Your task to perform on an android device: turn on showing notifications on the lock screen Image 0: 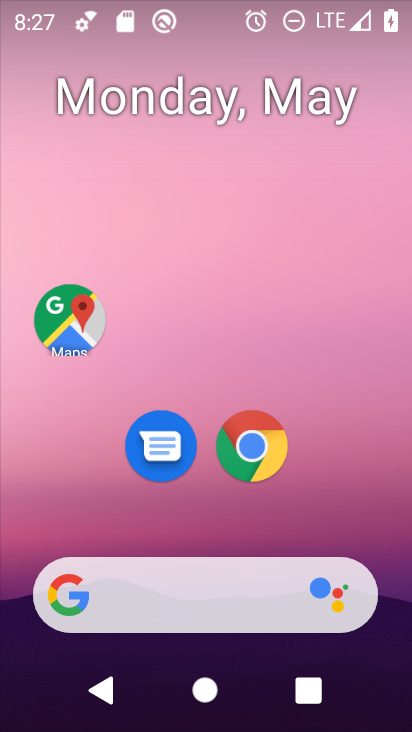
Step 0: drag from (313, 416) to (232, 81)
Your task to perform on an android device: turn on showing notifications on the lock screen Image 1: 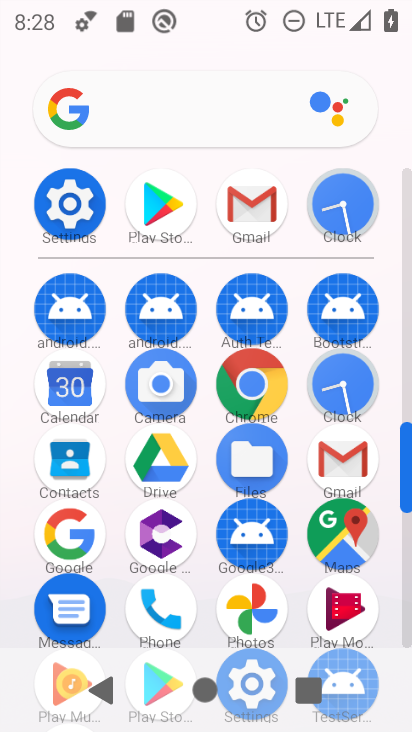
Step 1: click (59, 206)
Your task to perform on an android device: turn on showing notifications on the lock screen Image 2: 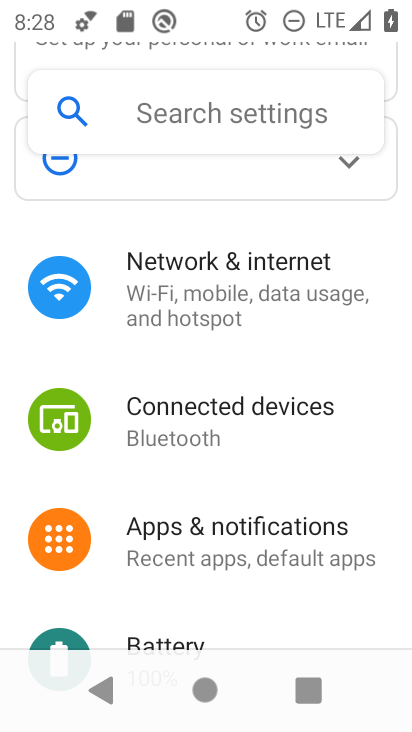
Step 2: click (242, 458)
Your task to perform on an android device: turn on showing notifications on the lock screen Image 3: 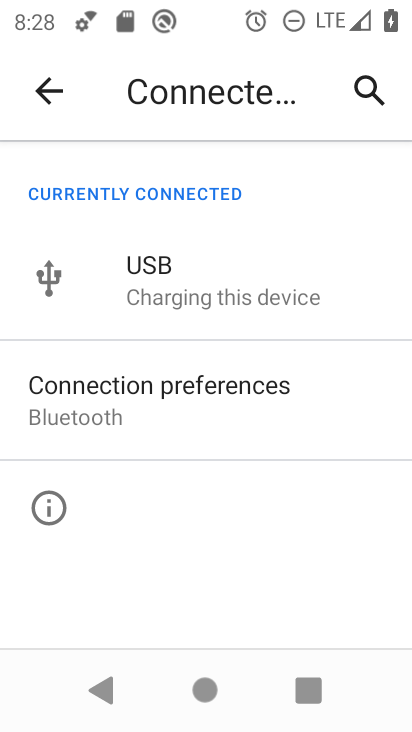
Step 3: click (48, 89)
Your task to perform on an android device: turn on showing notifications on the lock screen Image 4: 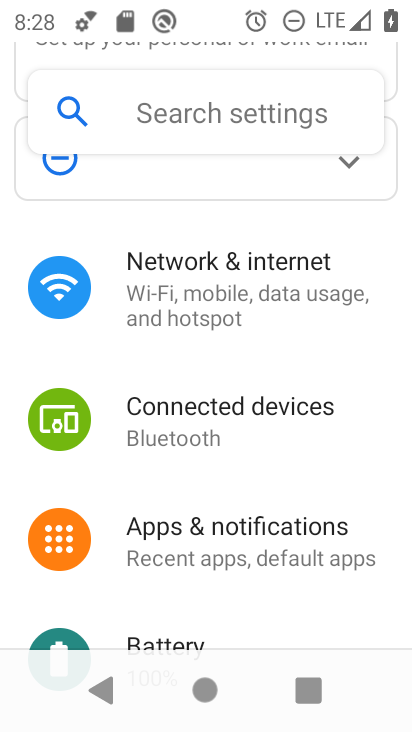
Step 4: click (252, 534)
Your task to perform on an android device: turn on showing notifications on the lock screen Image 5: 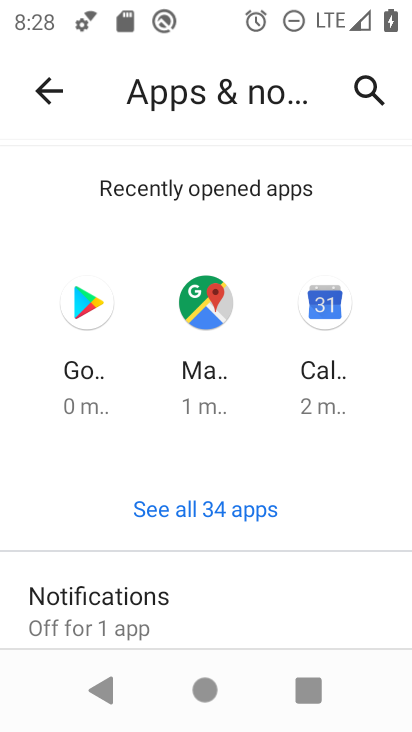
Step 5: drag from (227, 529) to (157, 187)
Your task to perform on an android device: turn on showing notifications on the lock screen Image 6: 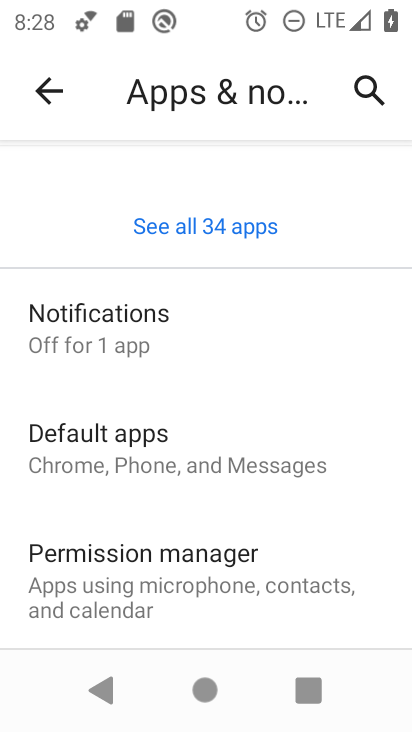
Step 6: click (109, 320)
Your task to perform on an android device: turn on showing notifications on the lock screen Image 7: 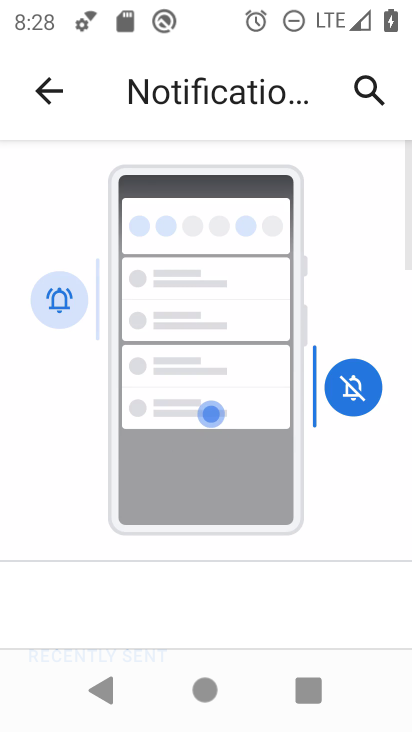
Step 7: drag from (205, 497) to (139, 80)
Your task to perform on an android device: turn on showing notifications on the lock screen Image 8: 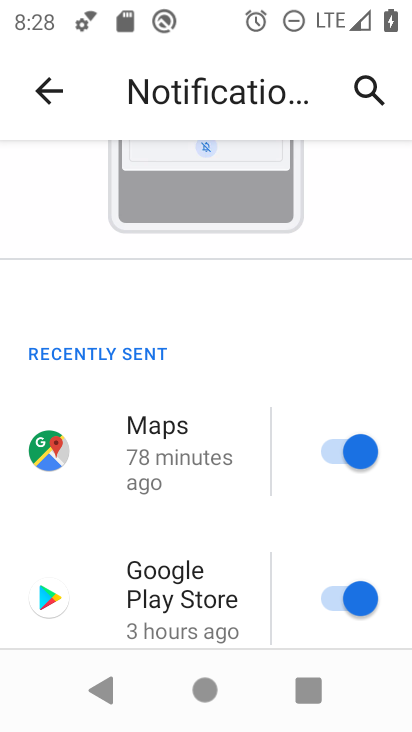
Step 8: drag from (297, 534) to (250, 238)
Your task to perform on an android device: turn on showing notifications on the lock screen Image 9: 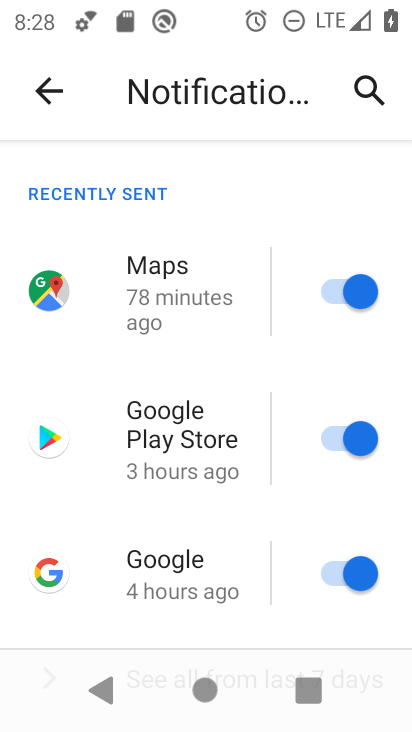
Step 9: drag from (215, 555) to (170, 273)
Your task to perform on an android device: turn on showing notifications on the lock screen Image 10: 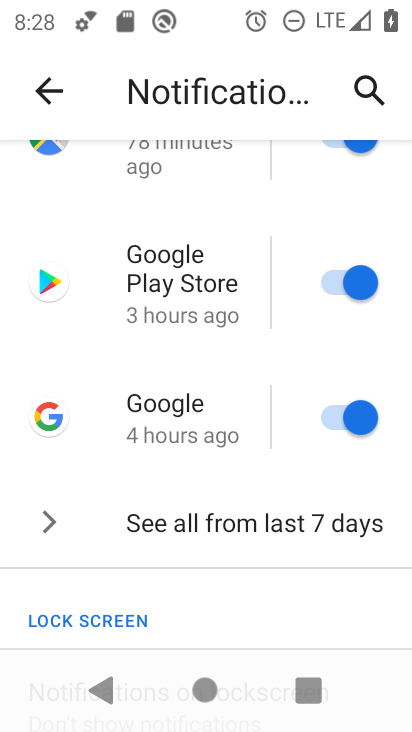
Step 10: drag from (231, 569) to (149, 317)
Your task to perform on an android device: turn on showing notifications on the lock screen Image 11: 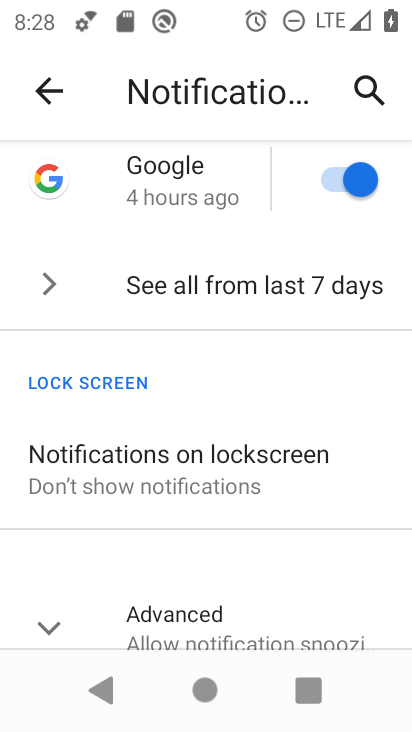
Step 11: click (166, 440)
Your task to perform on an android device: turn on showing notifications on the lock screen Image 12: 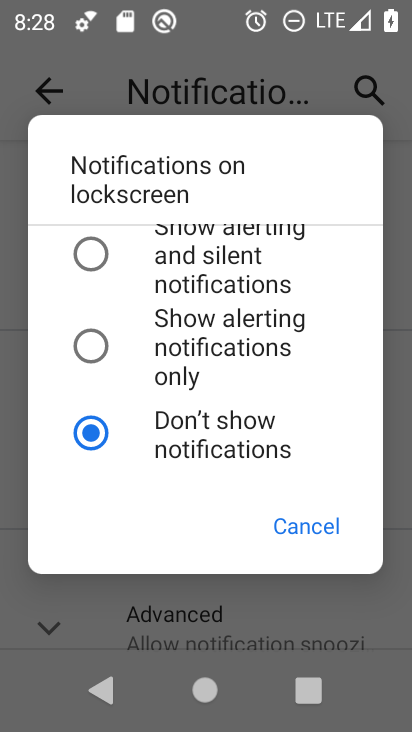
Step 12: click (85, 226)
Your task to perform on an android device: turn on showing notifications on the lock screen Image 13: 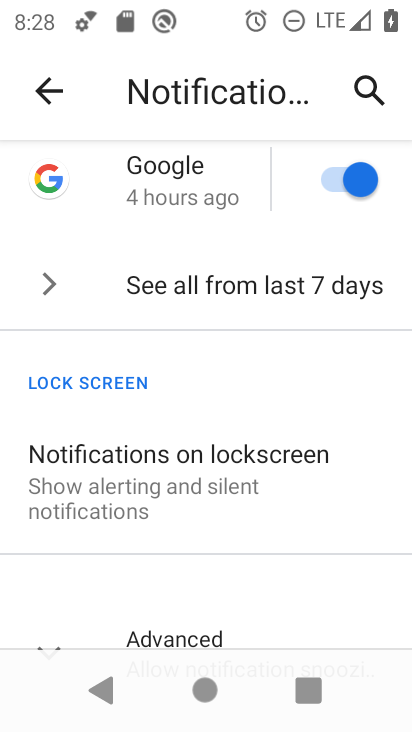
Step 13: task complete